Your task to perform on an android device: Go to eBay Image 0: 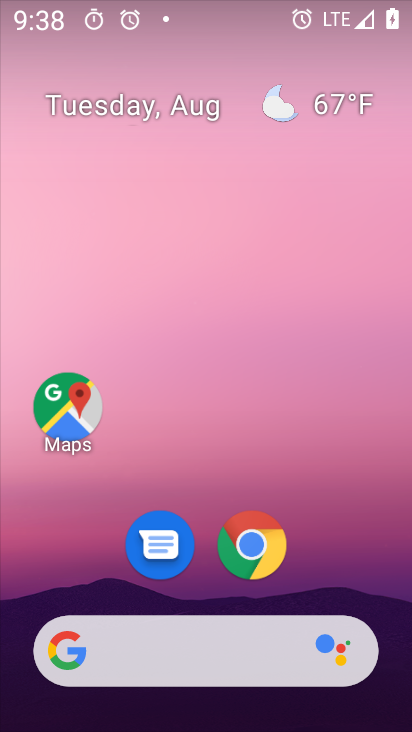
Step 0: drag from (210, 651) to (200, 201)
Your task to perform on an android device: Go to eBay Image 1: 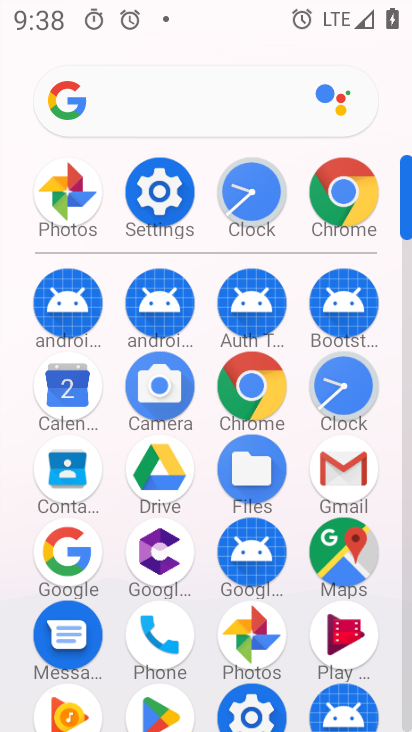
Step 1: click (343, 207)
Your task to perform on an android device: Go to eBay Image 2: 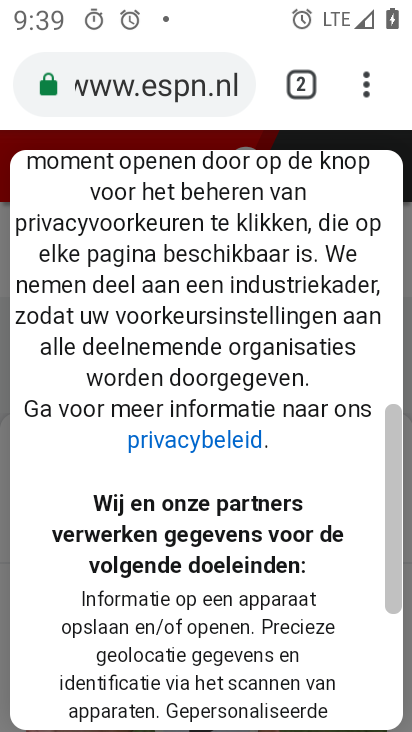
Step 2: click (201, 85)
Your task to perform on an android device: Go to eBay Image 3: 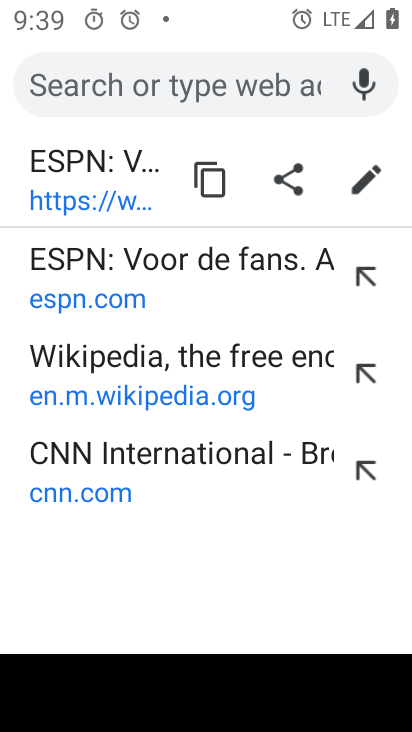
Step 3: type "ebay"
Your task to perform on an android device: Go to eBay Image 4: 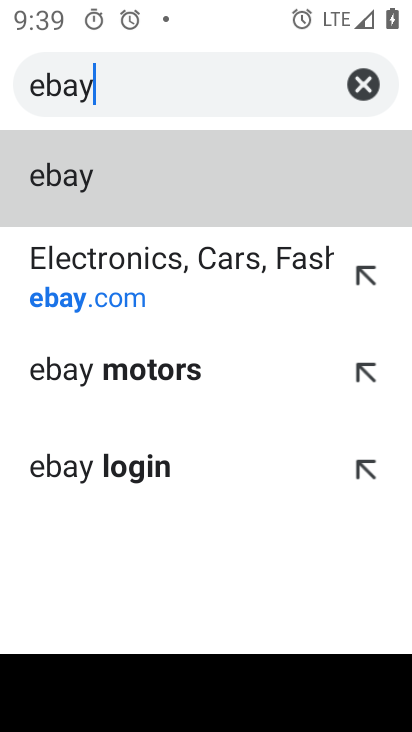
Step 4: click (141, 291)
Your task to perform on an android device: Go to eBay Image 5: 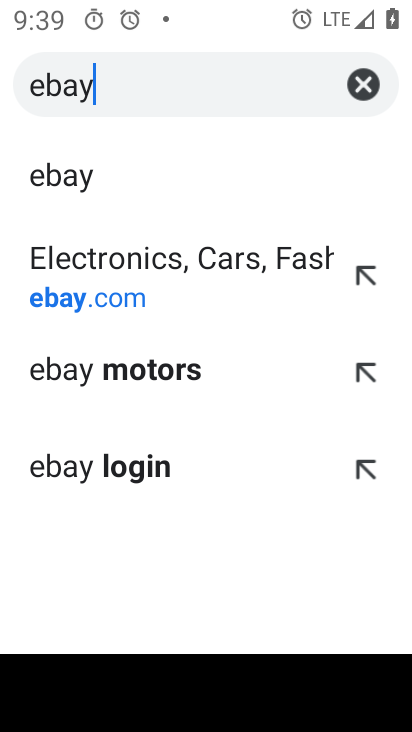
Step 5: click (134, 293)
Your task to perform on an android device: Go to eBay Image 6: 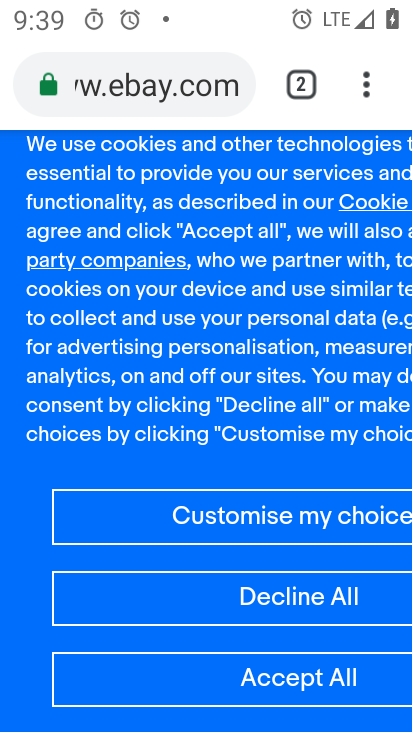
Step 6: task complete